Your task to perform on an android device: turn on notifications settings in the gmail app Image 0: 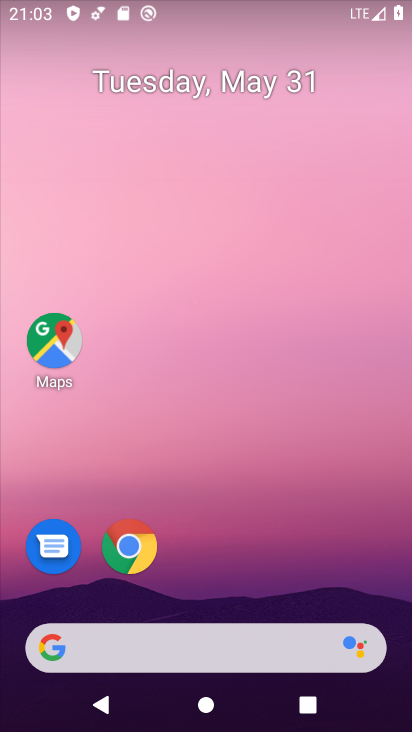
Step 0: drag from (393, 698) to (339, 188)
Your task to perform on an android device: turn on notifications settings in the gmail app Image 1: 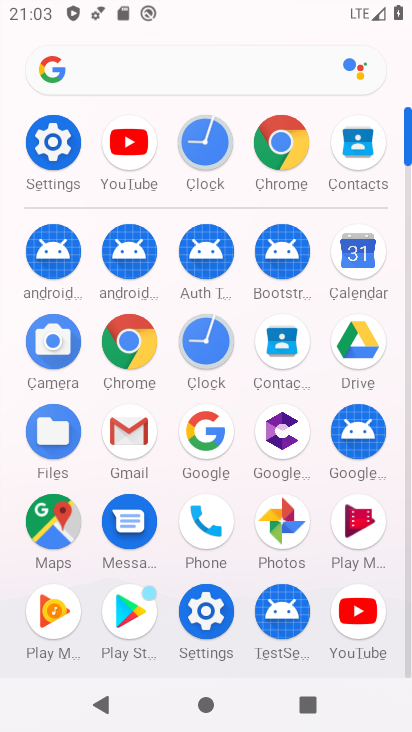
Step 1: click (124, 438)
Your task to perform on an android device: turn on notifications settings in the gmail app Image 2: 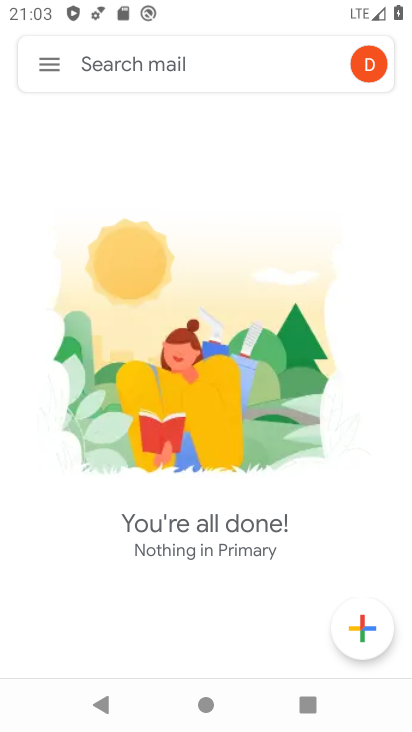
Step 2: click (55, 70)
Your task to perform on an android device: turn on notifications settings in the gmail app Image 3: 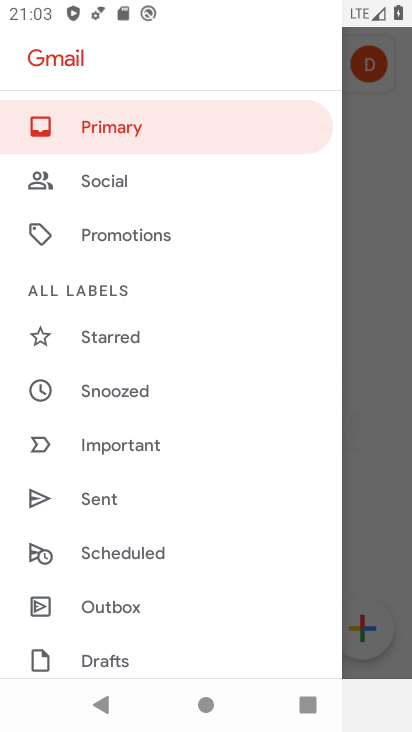
Step 3: drag from (266, 650) to (261, 266)
Your task to perform on an android device: turn on notifications settings in the gmail app Image 4: 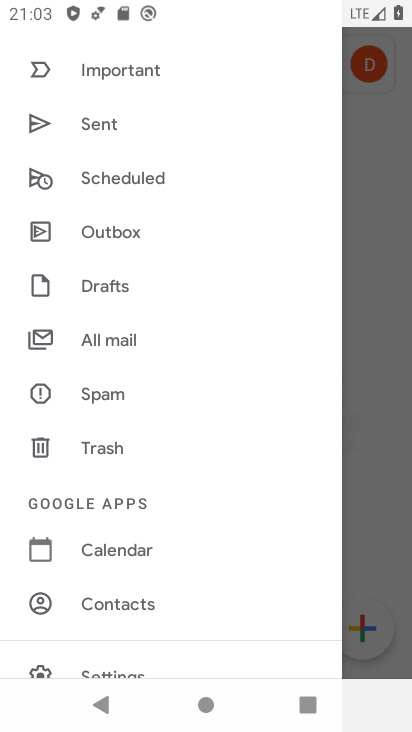
Step 4: click (108, 662)
Your task to perform on an android device: turn on notifications settings in the gmail app Image 5: 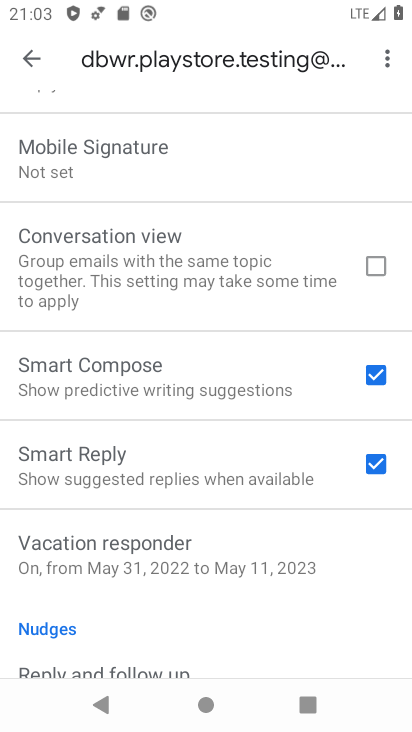
Step 5: click (35, 65)
Your task to perform on an android device: turn on notifications settings in the gmail app Image 6: 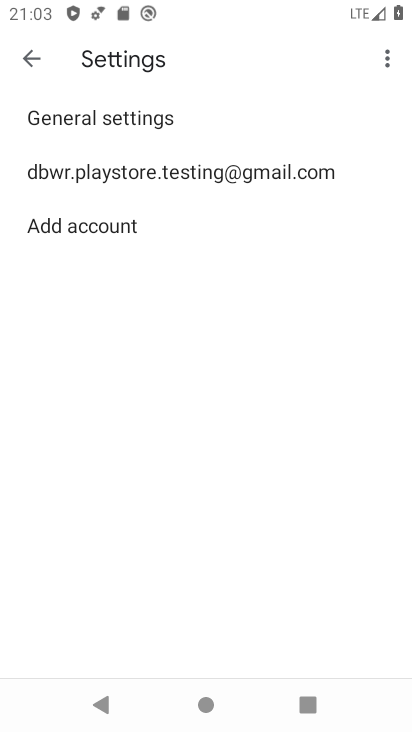
Step 6: click (64, 113)
Your task to perform on an android device: turn on notifications settings in the gmail app Image 7: 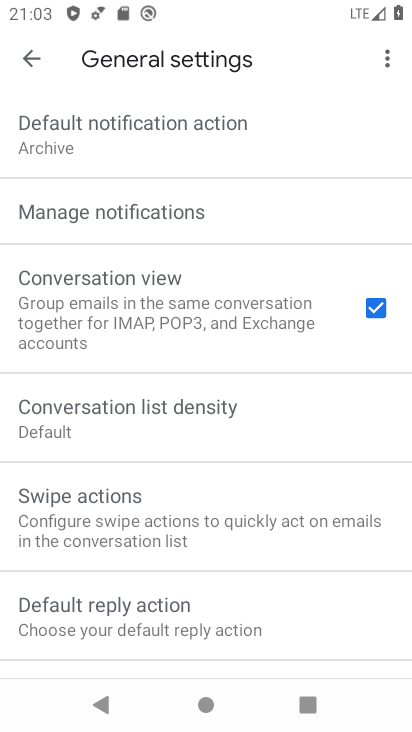
Step 7: click (71, 212)
Your task to perform on an android device: turn on notifications settings in the gmail app Image 8: 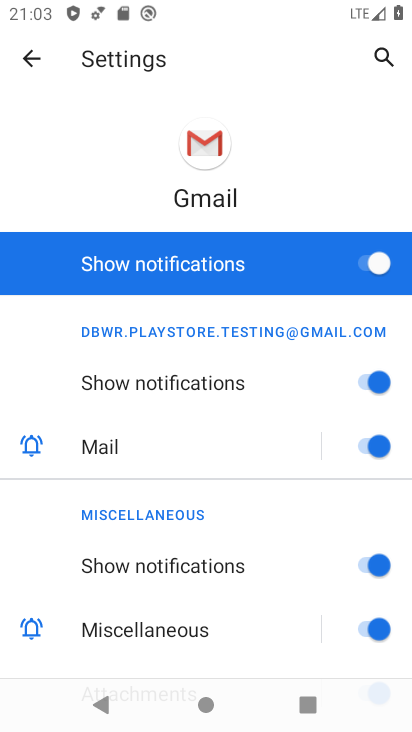
Step 8: task complete